Your task to perform on an android device: open app "Venmo" Image 0: 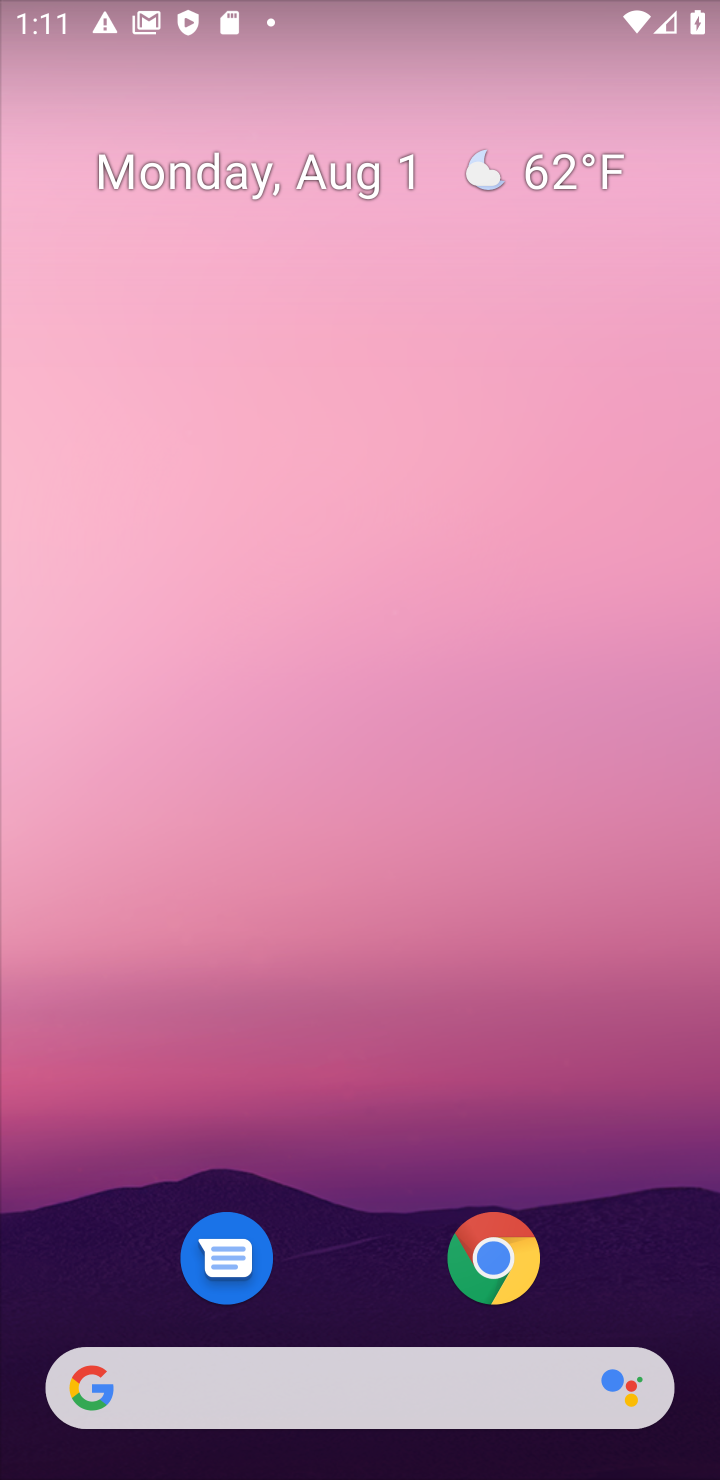
Step 0: drag from (191, 1289) to (397, 36)
Your task to perform on an android device: open app "Venmo" Image 1: 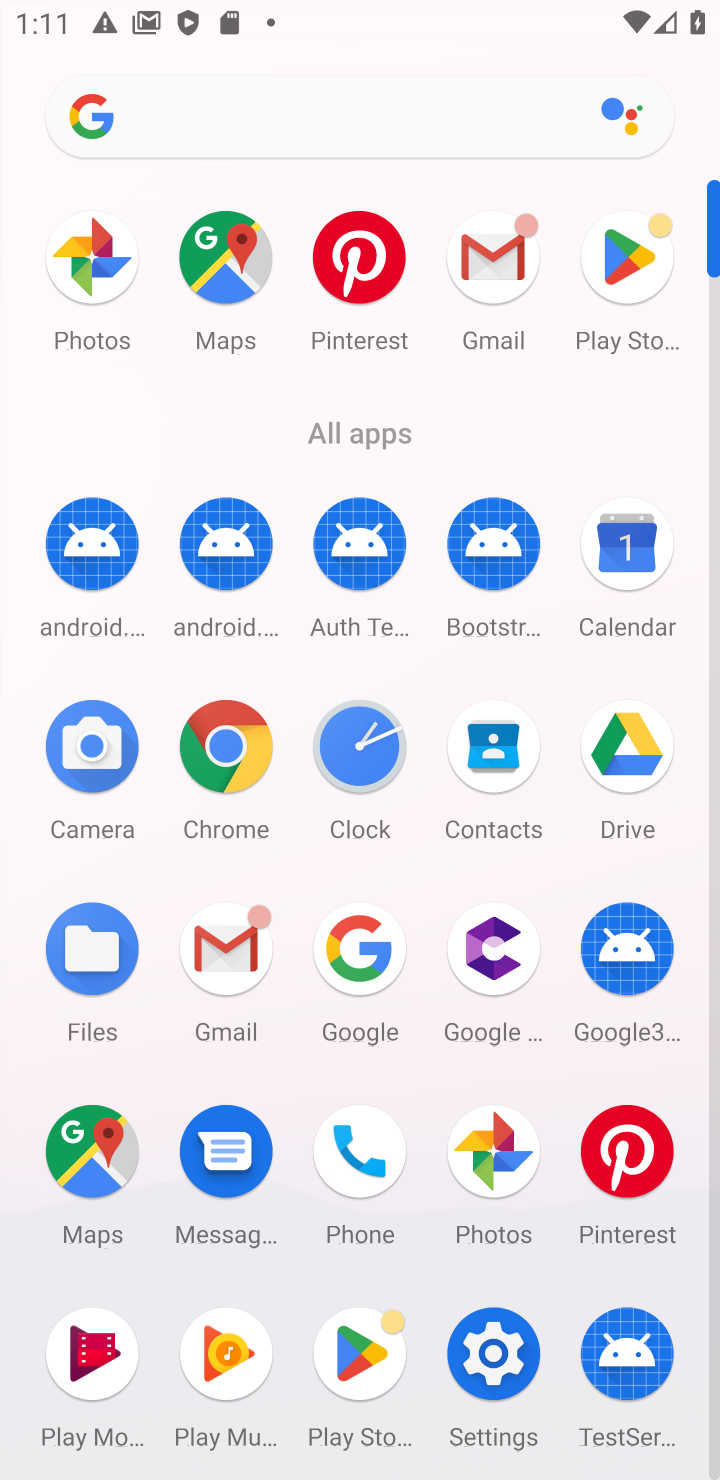
Step 1: click (636, 232)
Your task to perform on an android device: open app "Venmo" Image 2: 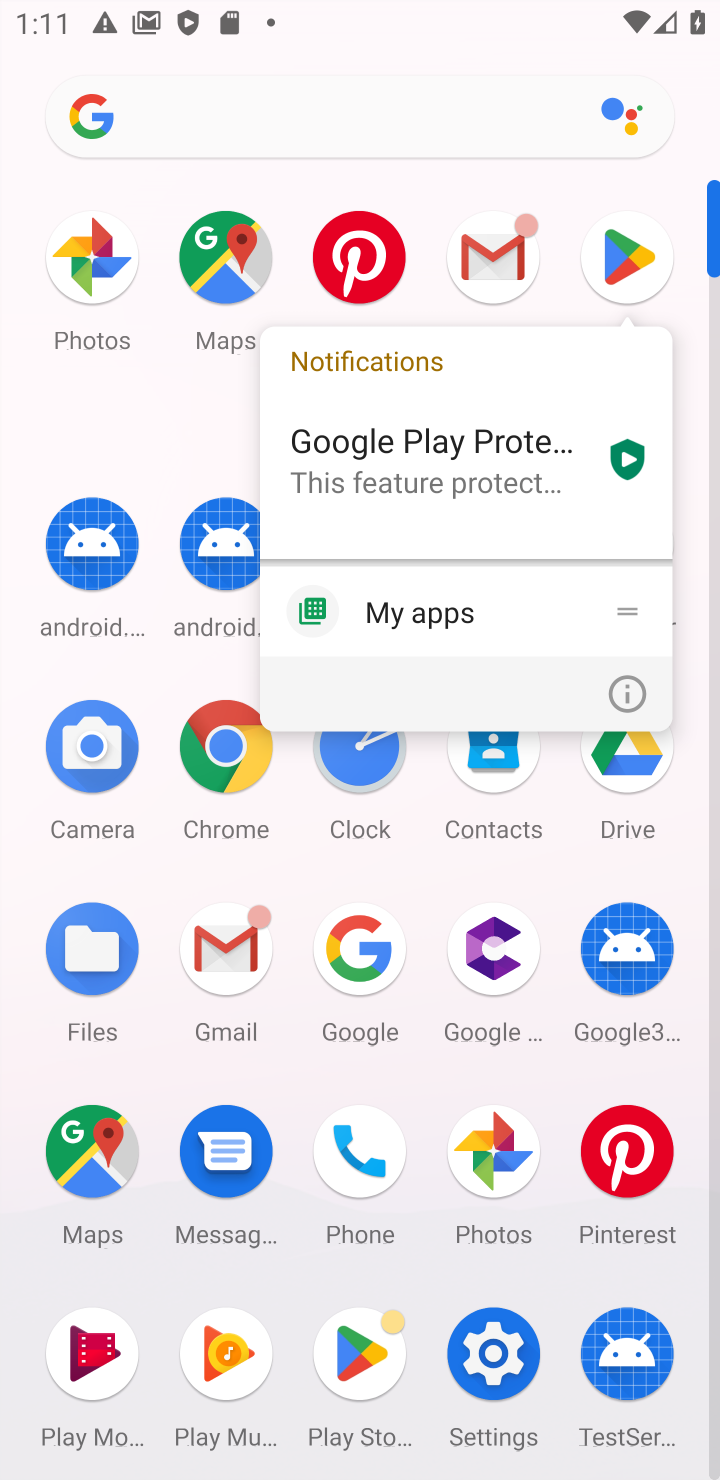
Step 2: click (633, 280)
Your task to perform on an android device: open app "Venmo" Image 3: 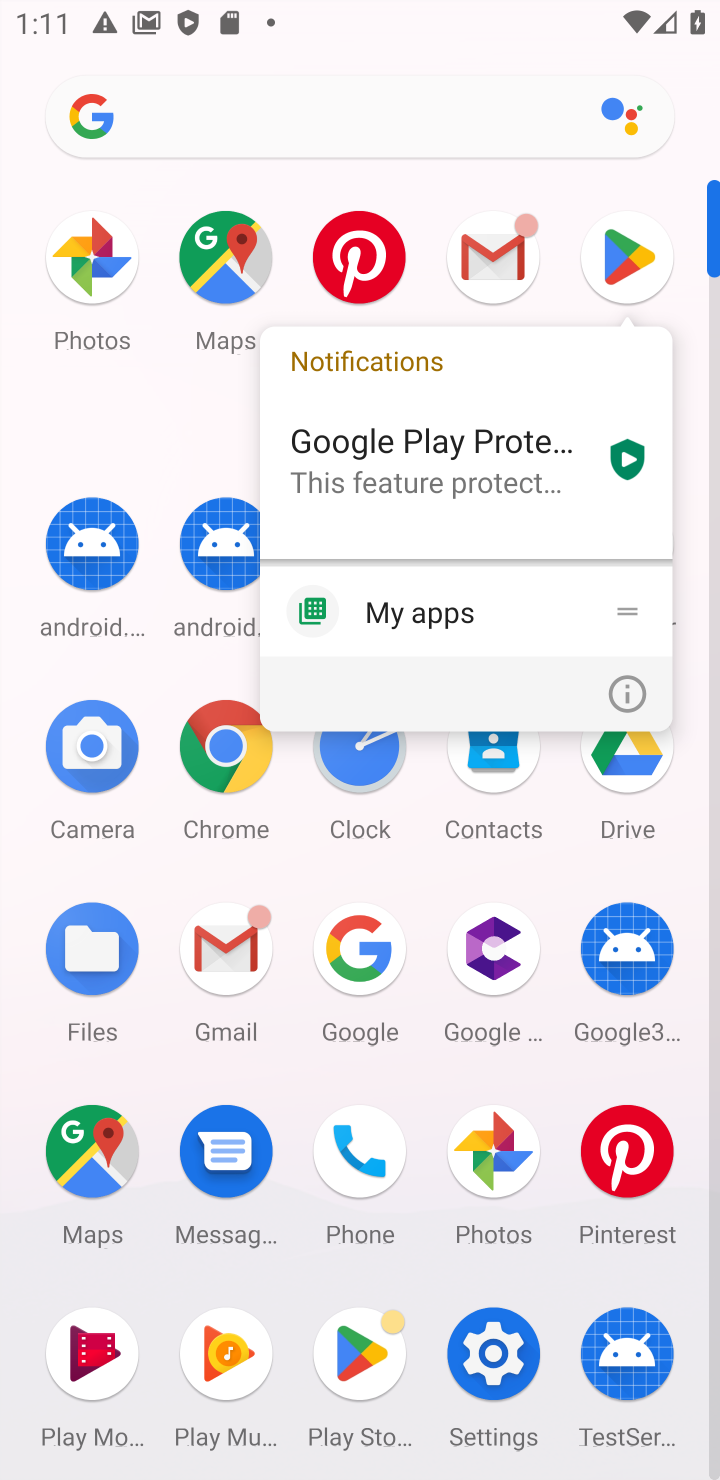
Step 3: click (637, 249)
Your task to perform on an android device: open app "Venmo" Image 4: 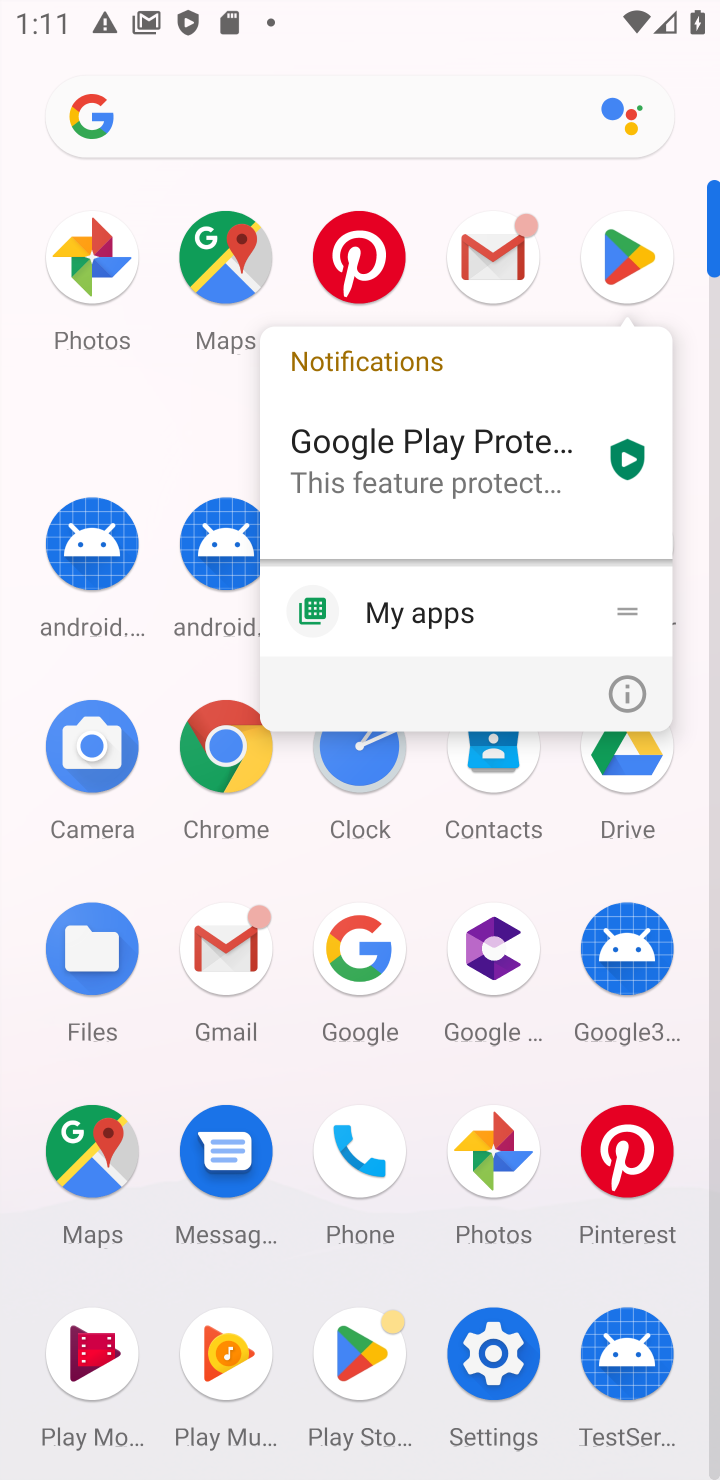
Step 4: click (631, 249)
Your task to perform on an android device: open app "Venmo" Image 5: 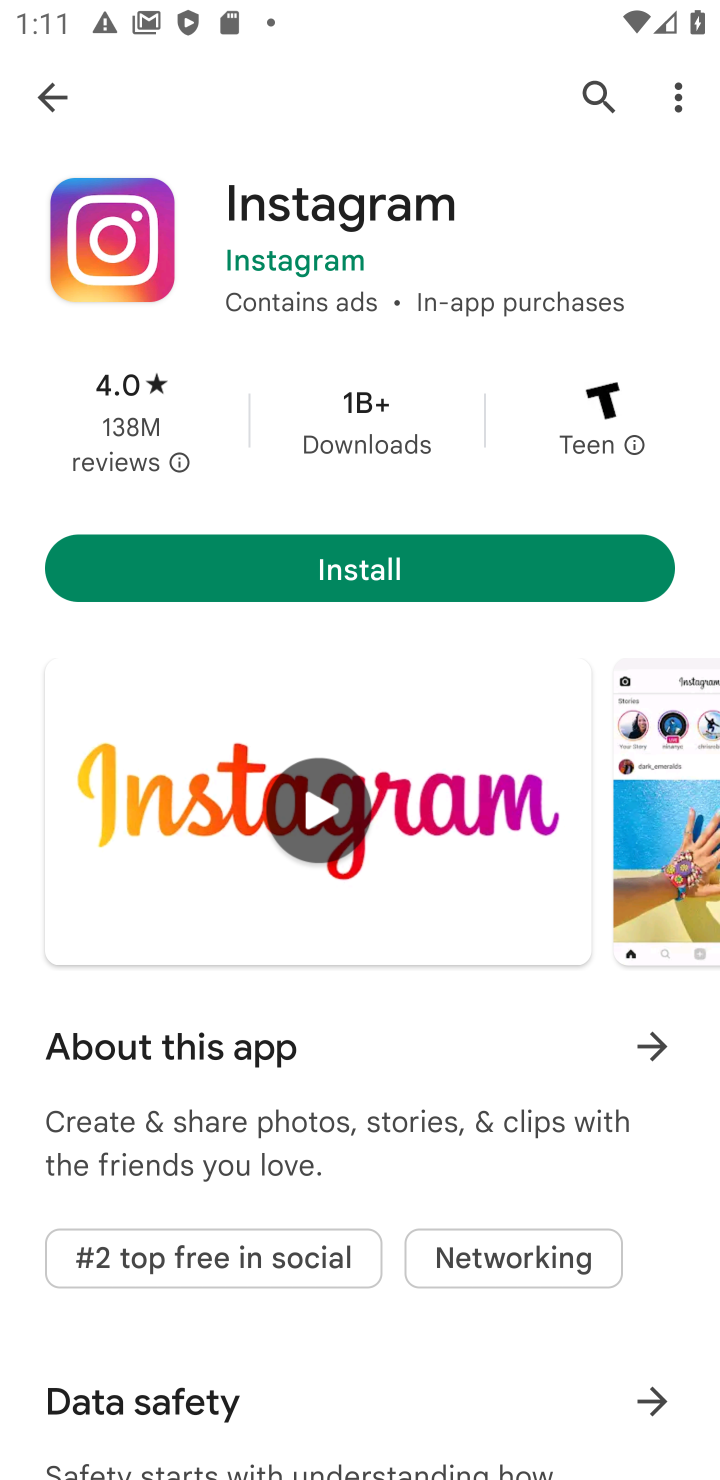
Step 5: click (595, 97)
Your task to perform on an android device: open app "Venmo" Image 6: 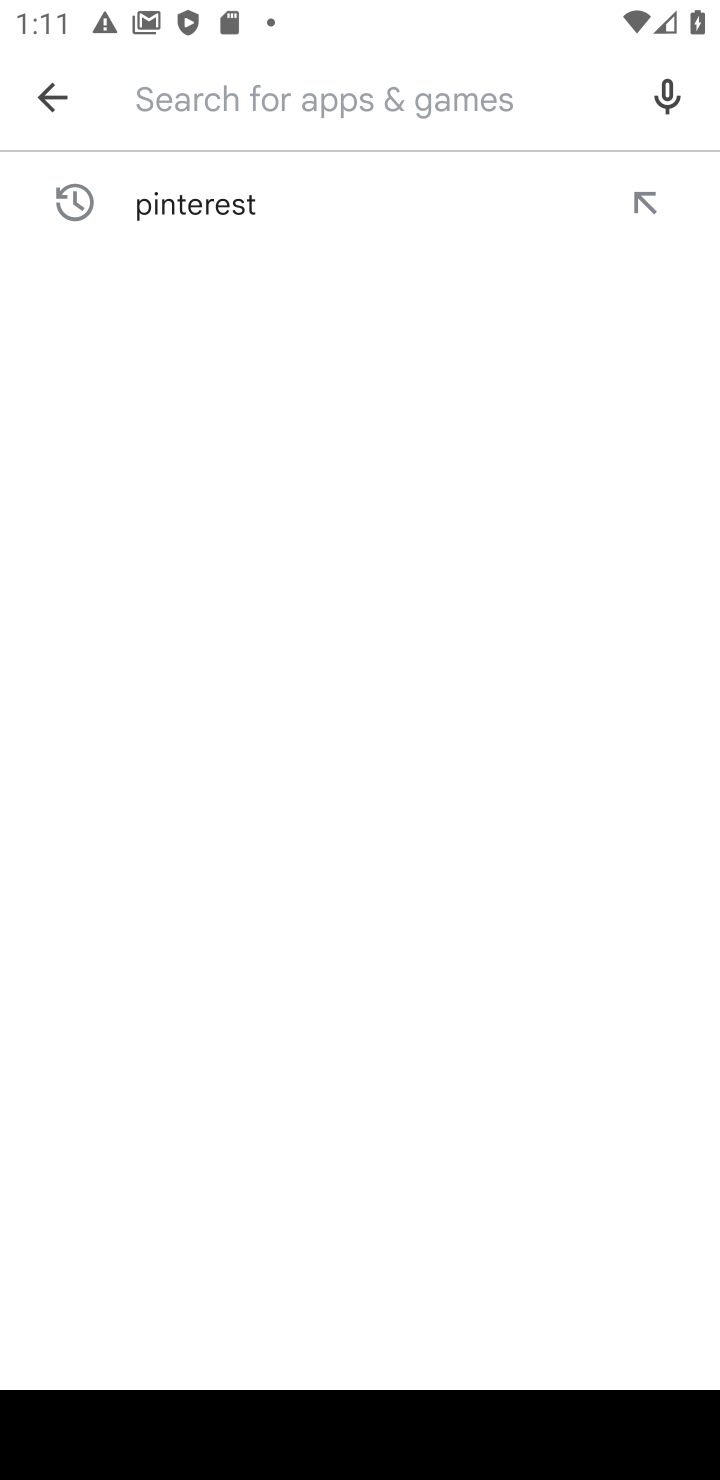
Step 6: click (380, 117)
Your task to perform on an android device: open app "Venmo" Image 7: 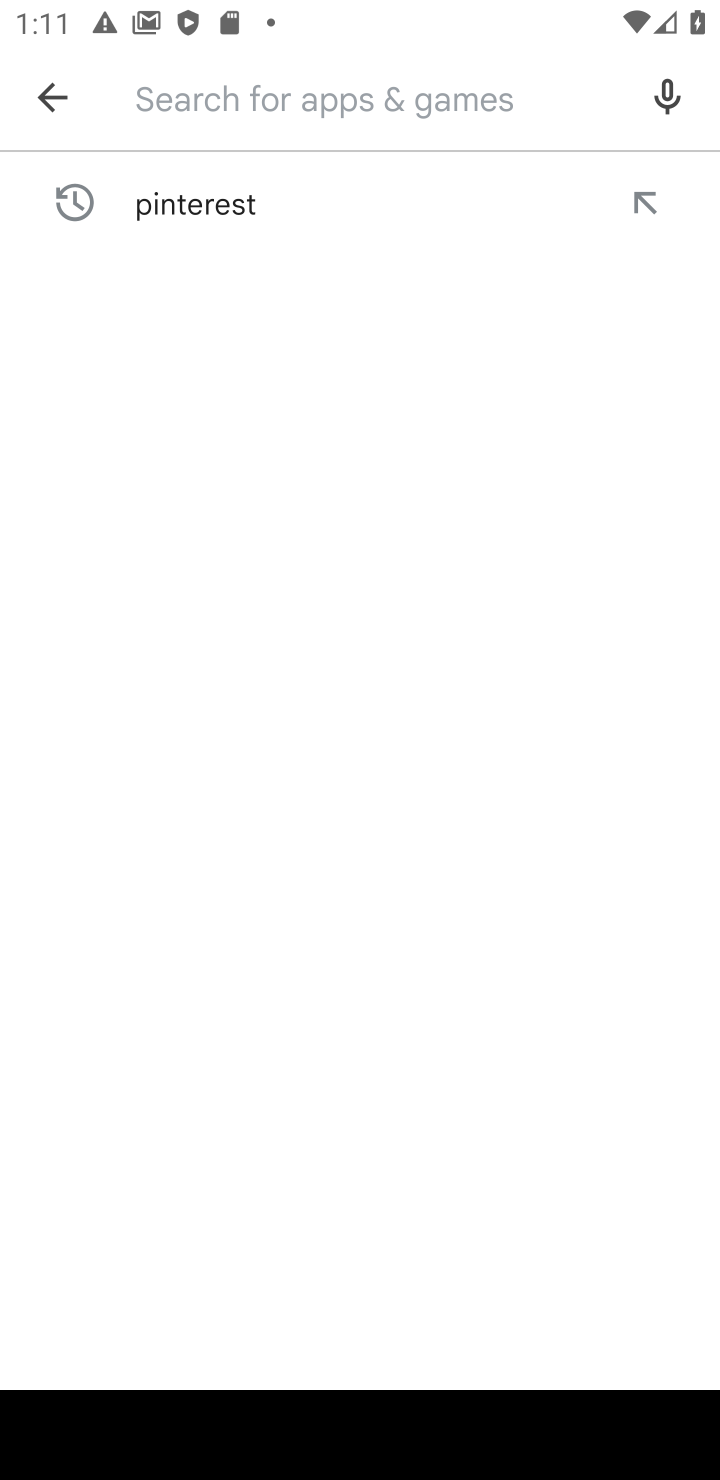
Step 7: click (276, 96)
Your task to perform on an android device: open app "Venmo" Image 8: 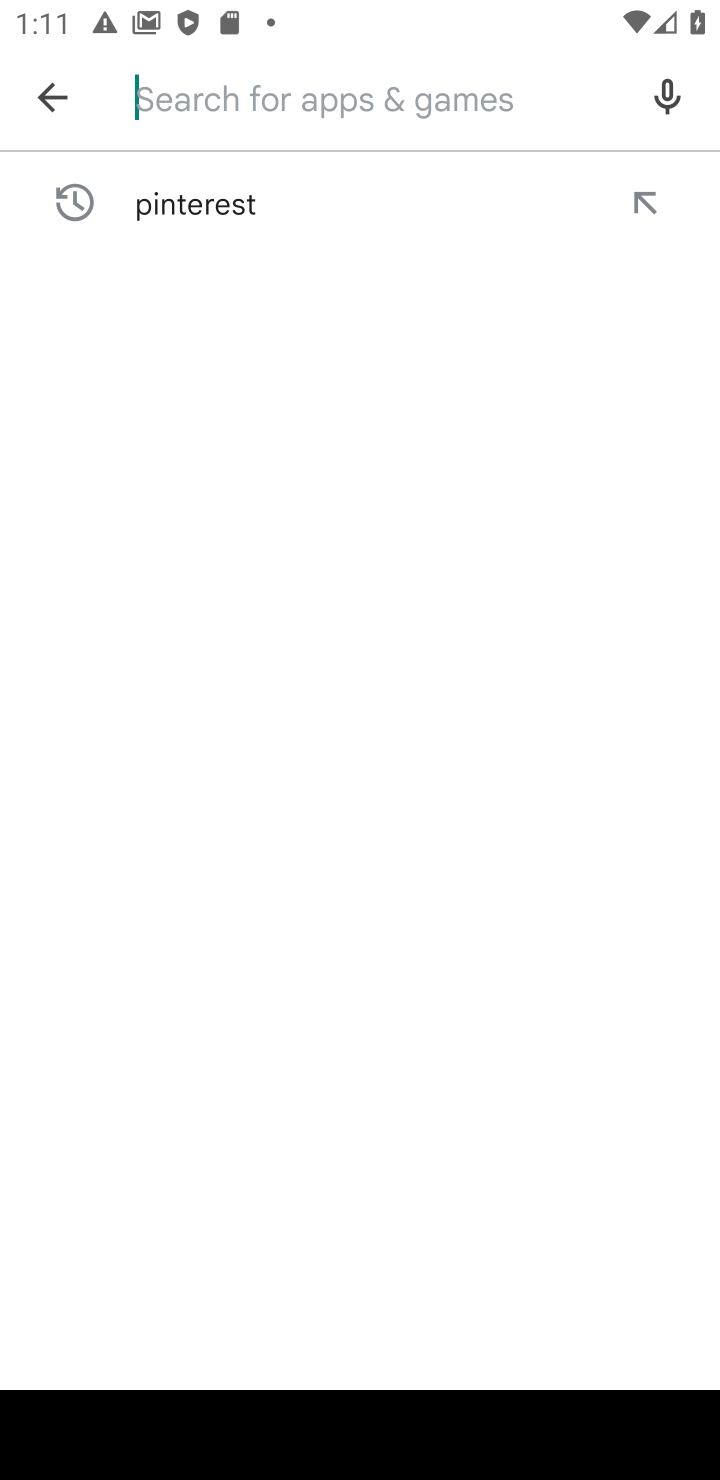
Step 8: type "venmo"
Your task to perform on an android device: open app "Venmo" Image 9: 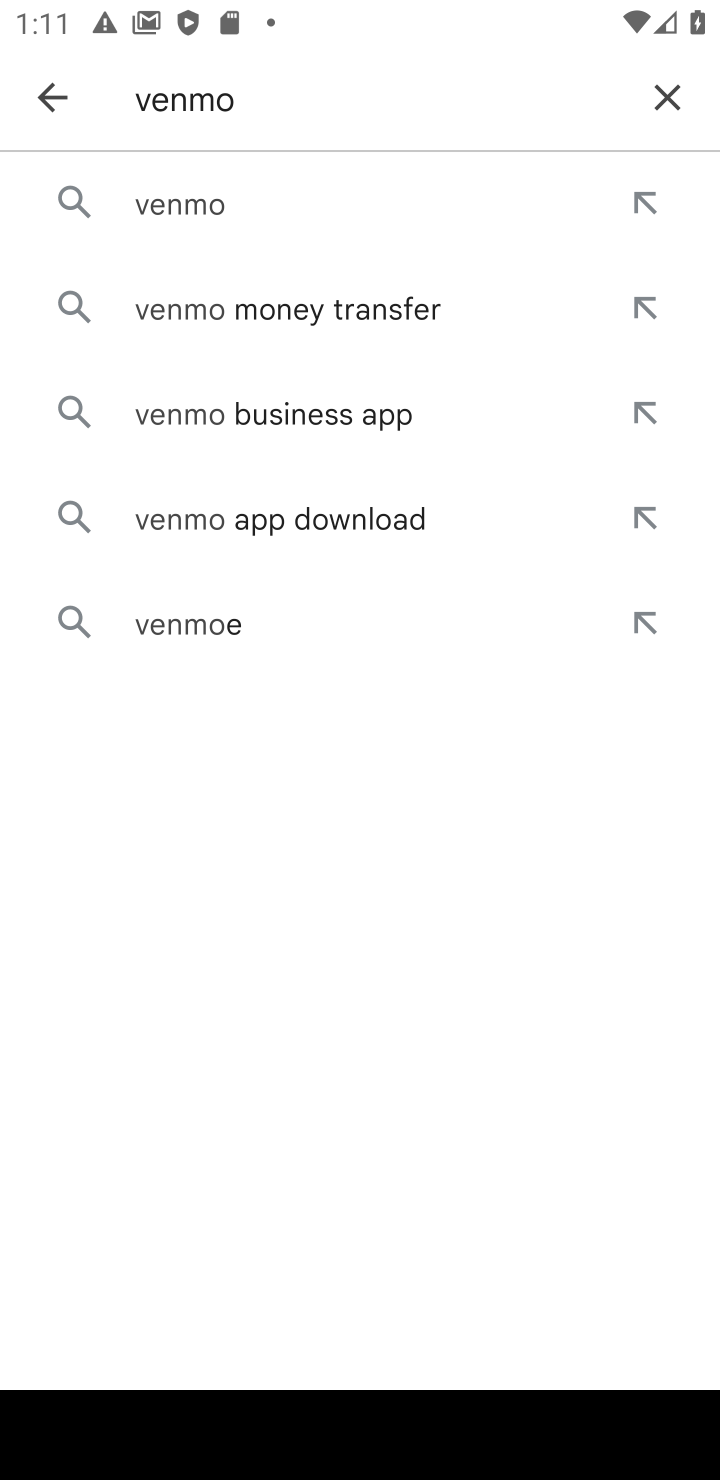
Step 9: click (190, 197)
Your task to perform on an android device: open app "Venmo" Image 10: 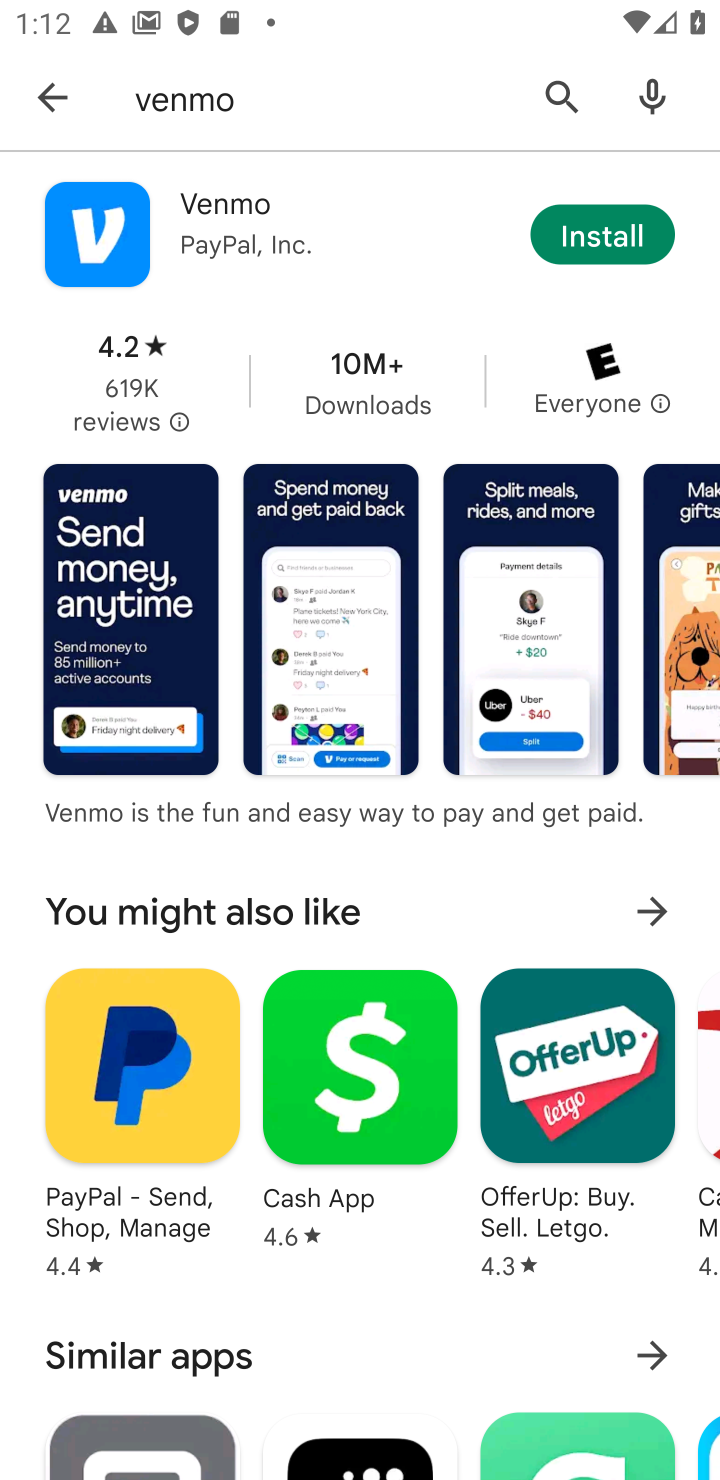
Step 10: task complete